Your task to perform on an android device: see creations saved in the google photos Image 0: 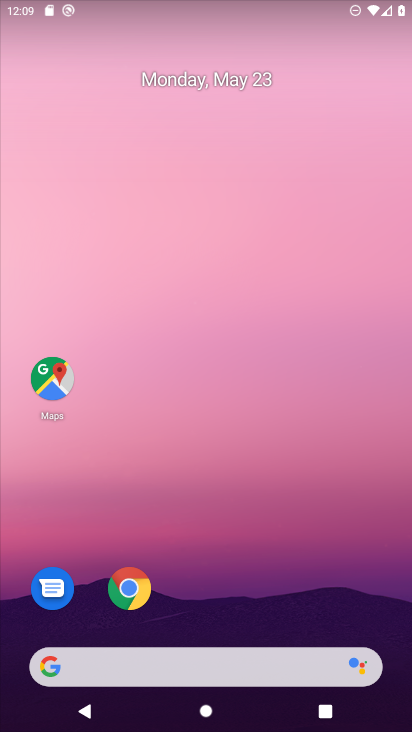
Step 0: drag from (290, 699) to (296, 74)
Your task to perform on an android device: see creations saved in the google photos Image 1: 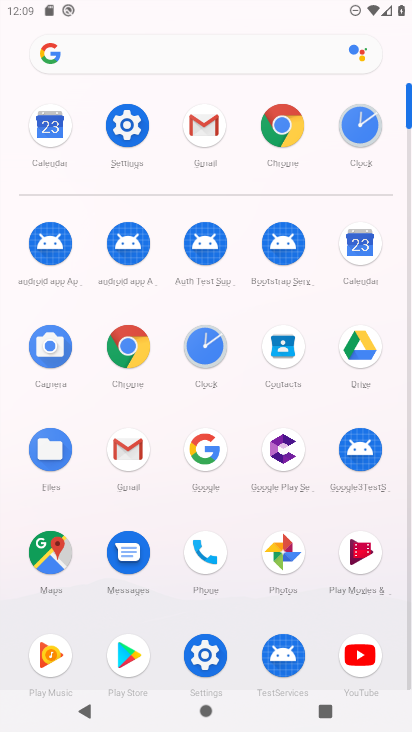
Step 1: click (284, 558)
Your task to perform on an android device: see creations saved in the google photos Image 2: 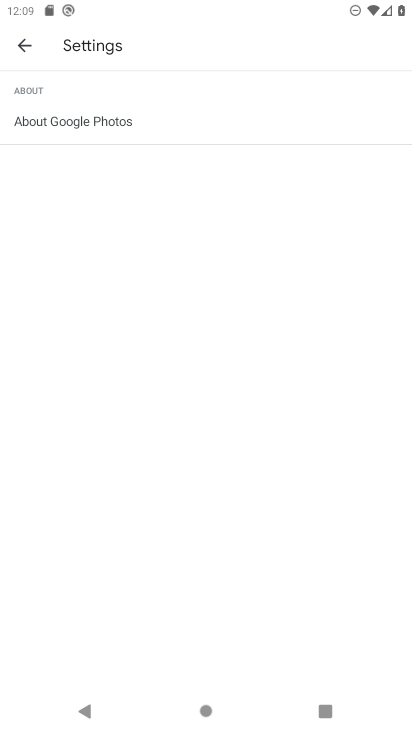
Step 2: click (28, 47)
Your task to perform on an android device: see creations saved in the google photos Image 3: 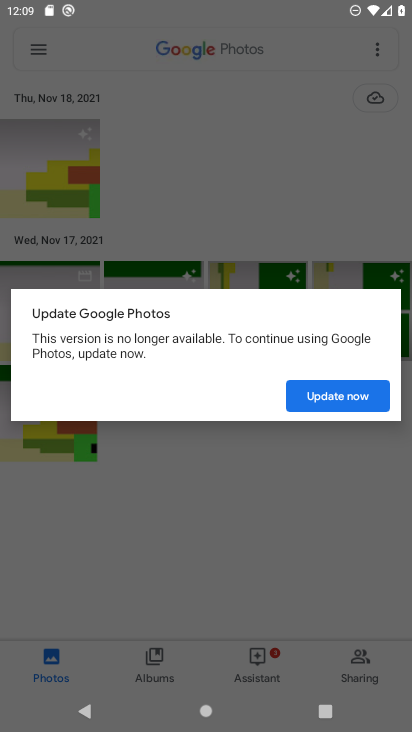
Step 3: click (312, 393)
Your task to perform on an android device: see creations saved in the google photos Image 4: 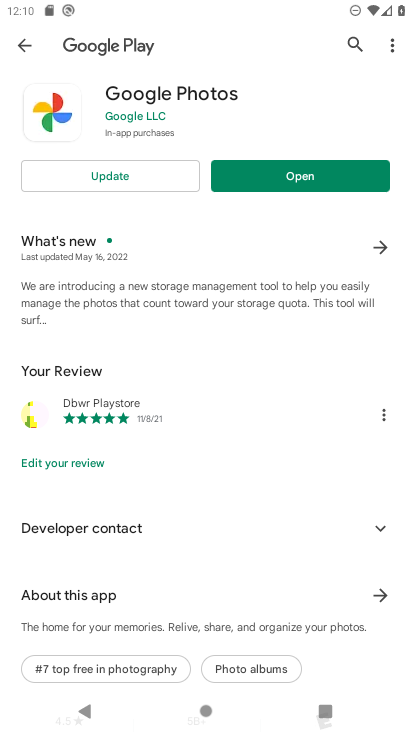
Step 4: click (298, 173)
Your task to perform on an android device: see creations saved in the google photos Image 5: 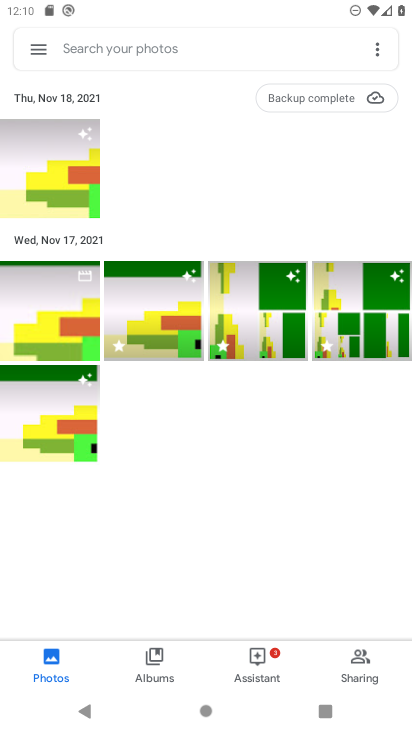
Step 5: click (235, 295)
Your task to perform on an android device: see creations saved in the google photos Image 6: 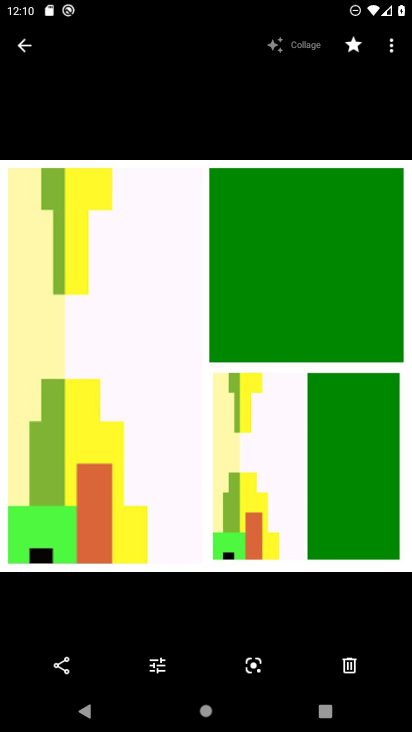
Step 6: click (392, 60)
Your task to perform on an android device: see creations saved in the google photos Image 7: 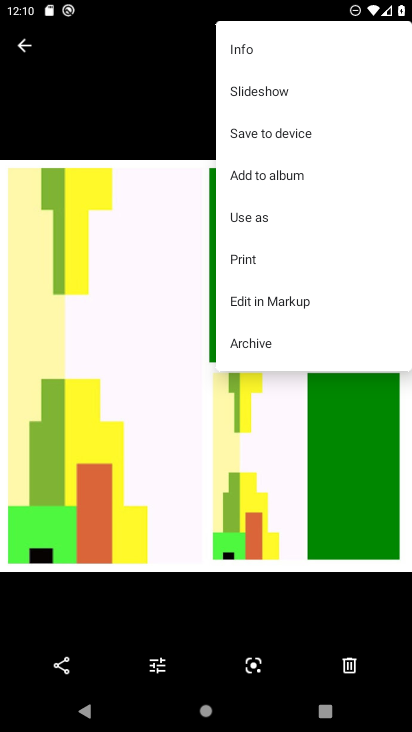
Step 7: click (268, 139)
Your task to perform on an android device: see creations saved in the google photos Image 8: 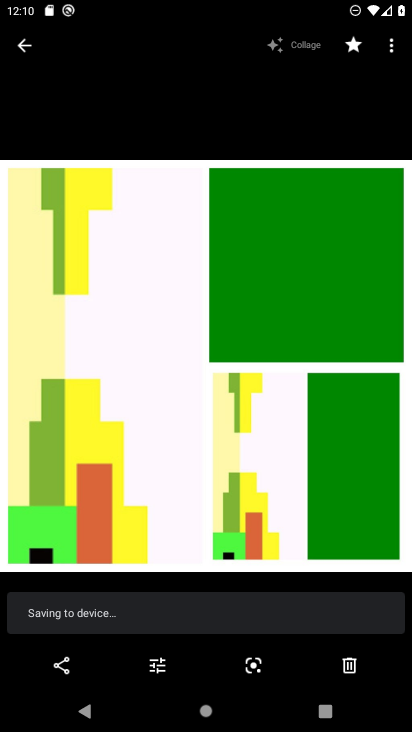
Step 8: task complete